Your task to perform on an android device: toggle translation in the chrome app Image 0: 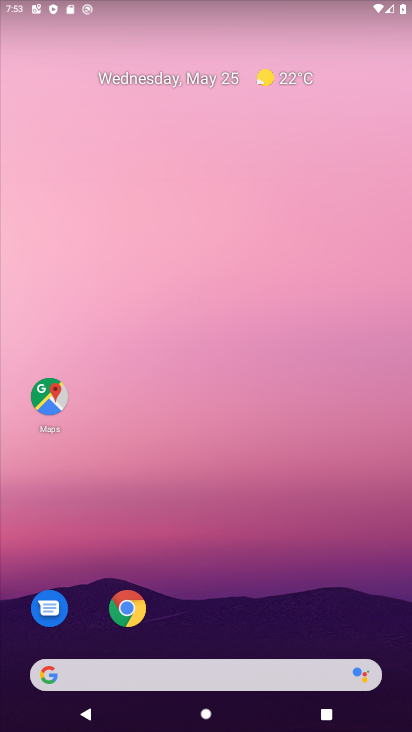
Step 0: click (128, 609)
Your task to perform on an android device: toggle translation in the chrome app Image 1: 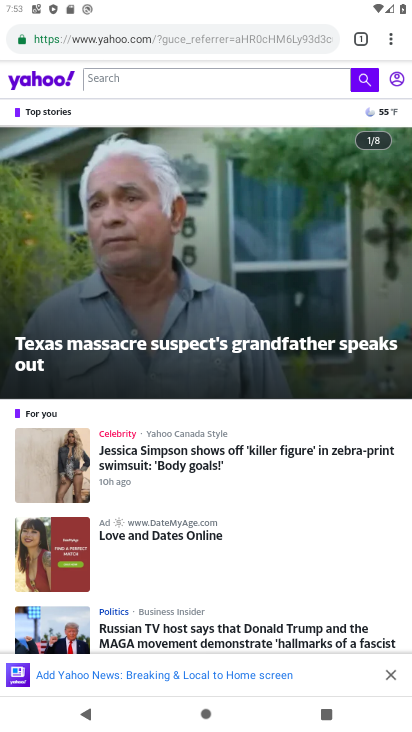
Step 1: click (391, 38)
Your task to perform on an android device: toggle translation in the chrome app Image 2: 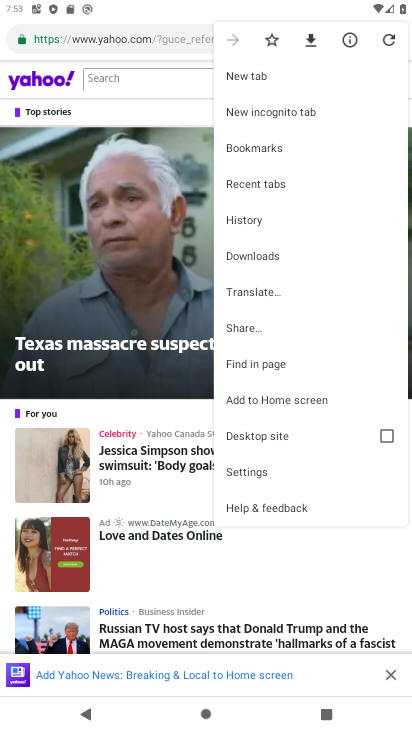
Step 2: click (246, 470)
Your task to perform on an android device: toggle translation in the chrome app Image 3: 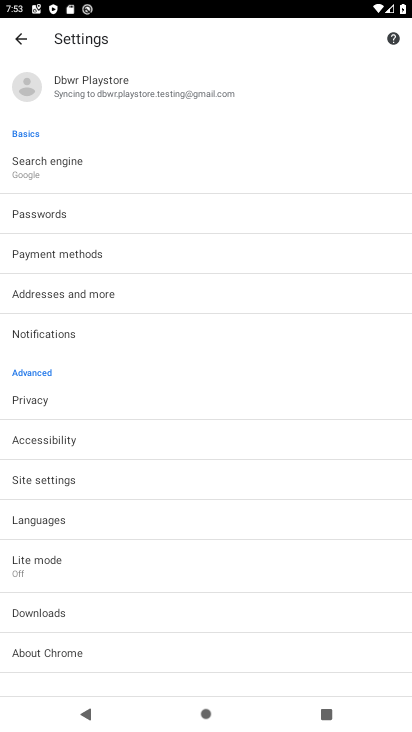
Step 3: click (36, 521)
Your task to perform on an android device: toggle translation in the chrome app Image 4: 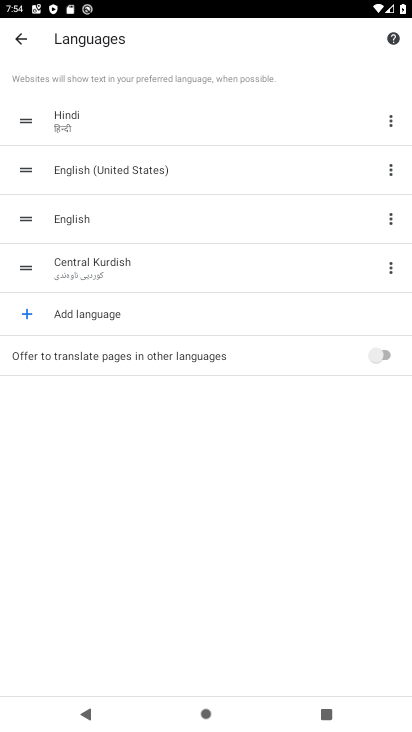
Step 4: click (391, 353)
Your task to perform on an android device: toggle translation in the chrome app Image 5: 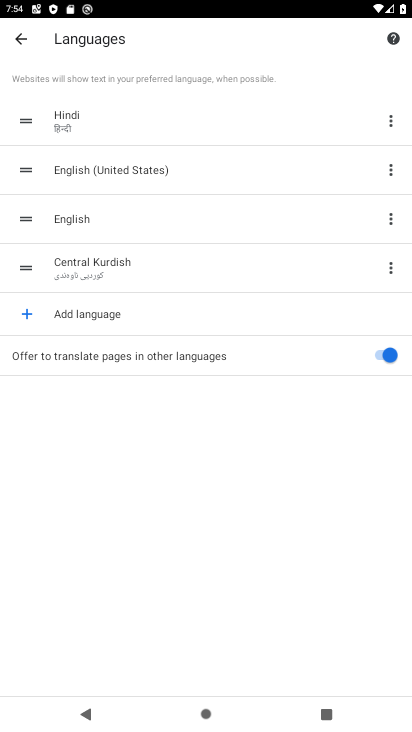
Step 5: task complete